Your task to perform on an android device: turn on airplane mode Image 0: 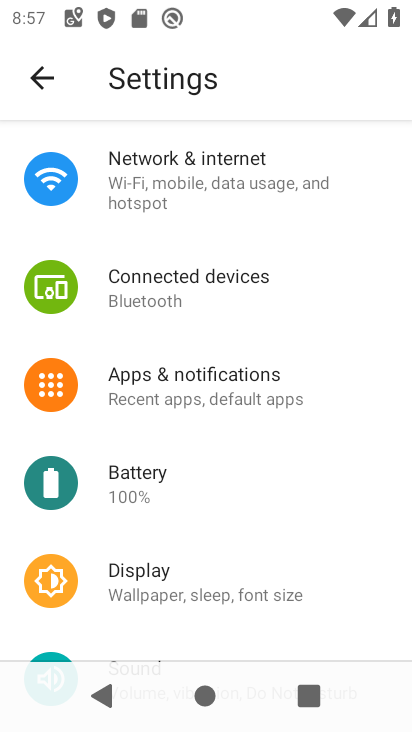
Step 0: click (207, 192)
Your task to perform on an android device: turn on airplane mode Image 1: 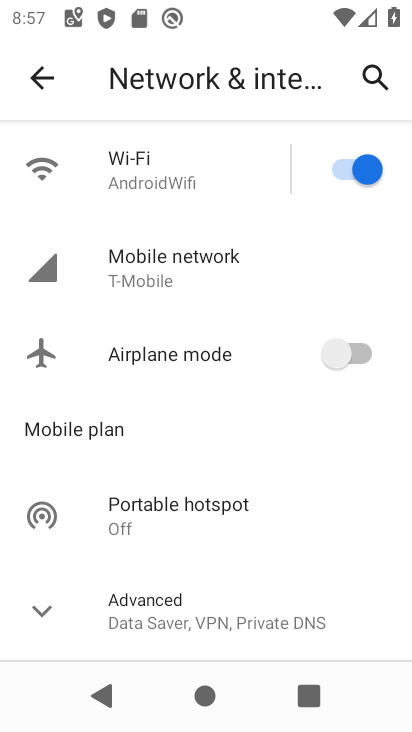
Step 1: click (335, 356)
Your task to perform on an android device: turn on airplane mode Image 2: 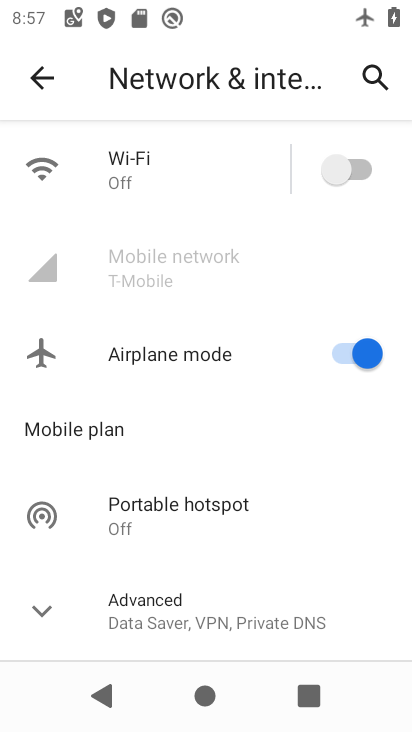
Step 2: task complete